Your task to perform on an android device: toggle improve location accuracy Image 0: 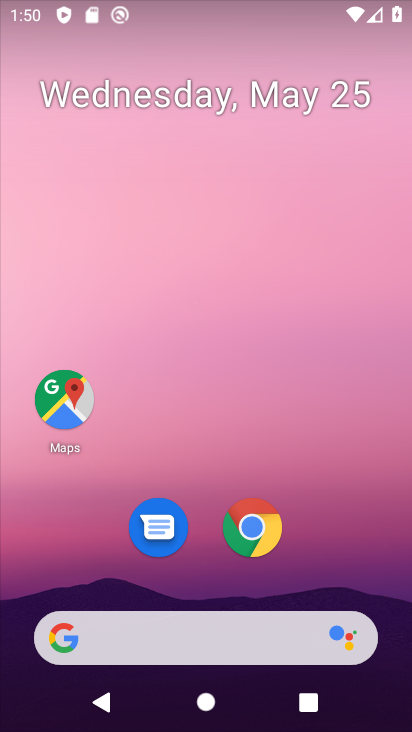
Step 0: drag from (86, 605) to (192, 265)
Your task to perform on an android device: toggle improve location accuracy Image 1: 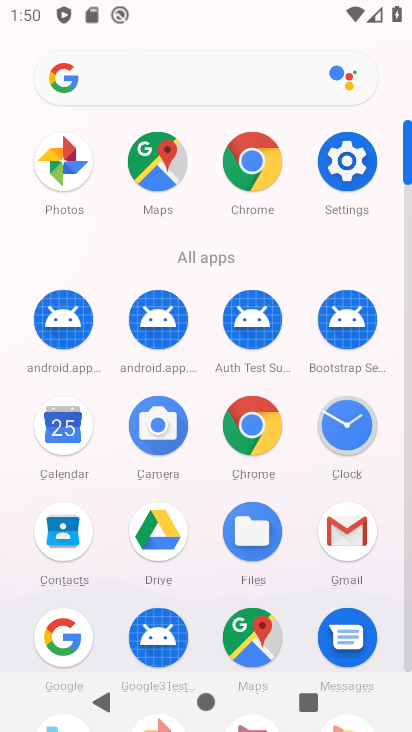
Step 1: drag from (228, 637) to (302, 381)
Your task to perform on an android device: toggle improve location accuracy Image 2: 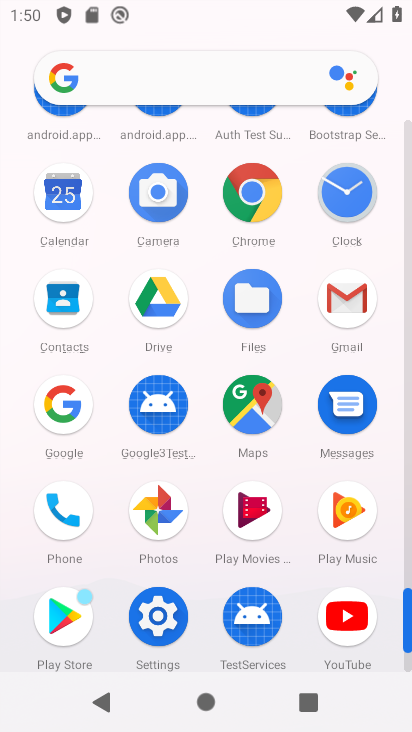
Step 2: click (161, 620)
Your task to perform on an android device: toggle improve location accuracy Image 3: 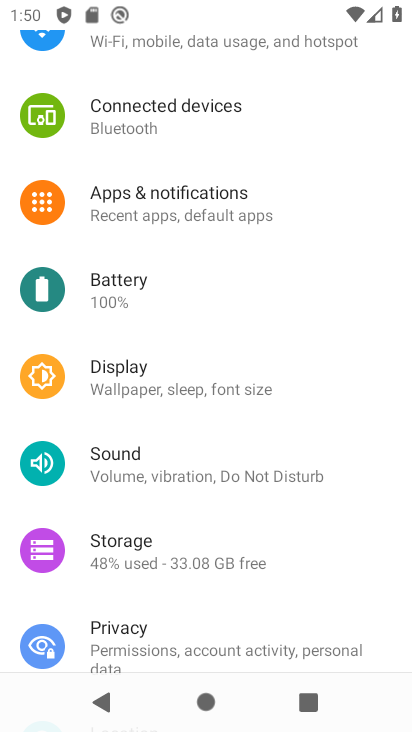
Step 3: drag from (192, 529) to (303, 182)
Your task to perform on an android device: toggle improve location accuracy Image 4: 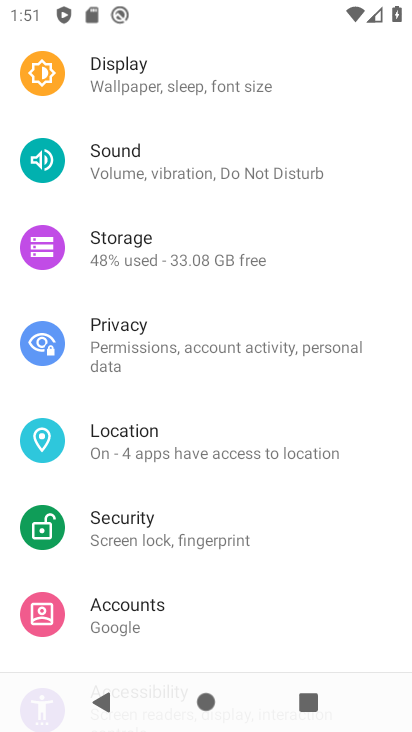
Step 4: click (189, 455)
Your task to perform on an android device: toggle improve location accuracy Image 5: 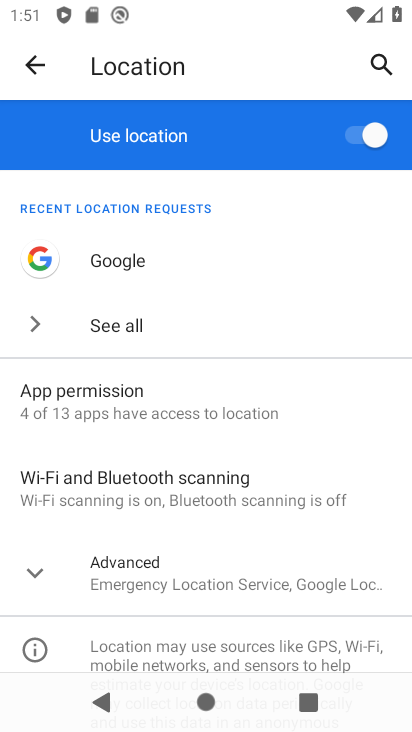
Step 5: drag from (123, 614) to (214, 375)
Your task to perform on an android device: toggle improve location accuracy Image 6: 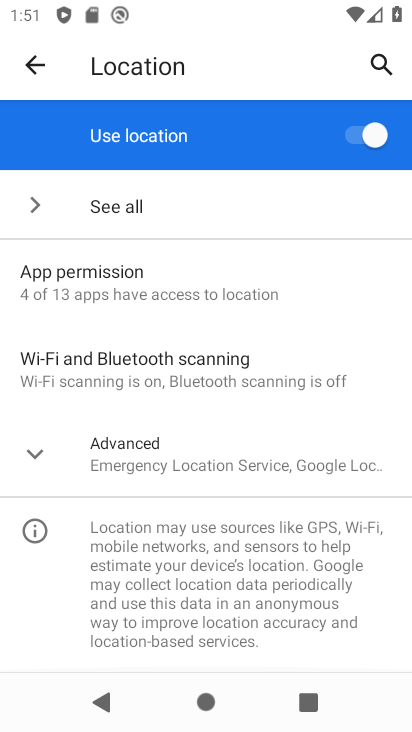
Step 6: click (187, 451)
Your task to perform on an android device: toggle improve location accuracy Image 7: 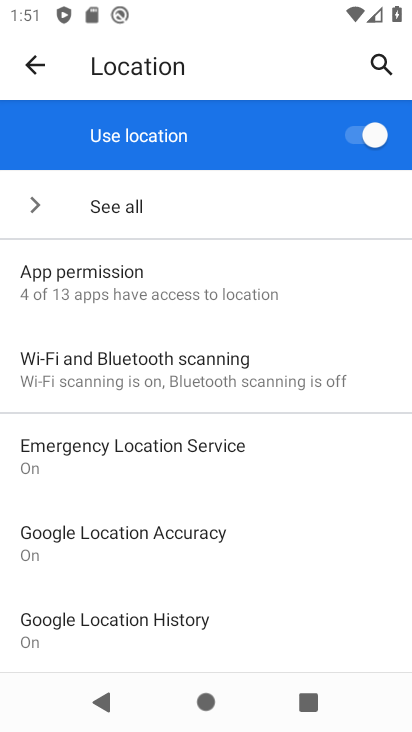
Step 7: click (184, 545)
Your task to perform on an android device: toggle improve location accuracy Image 8: 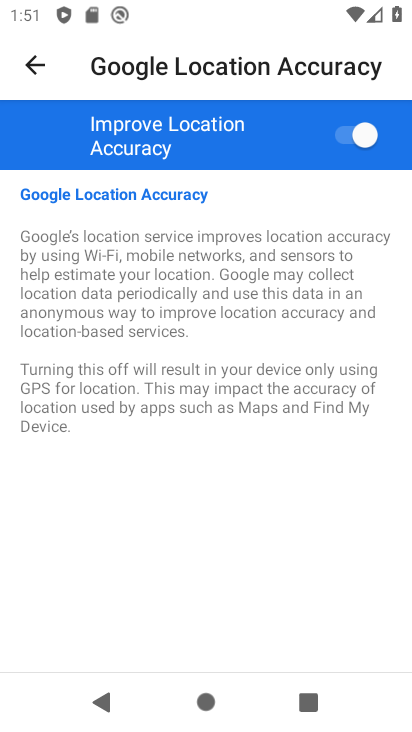
Step 8: click (345, 134)
Your task to perform on an android device: toggle improve location accuracy Image 9: 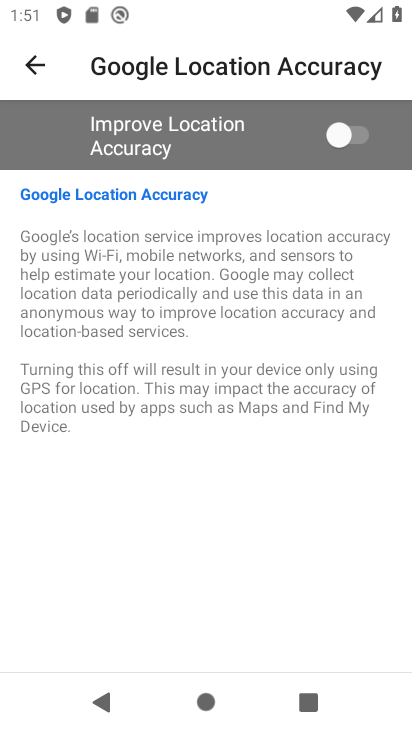
Step 9: task complete